Your task to perform on an android device: open app "eBay: The shopping marketplace" (install if not already installed) and go to login screen Image 0: 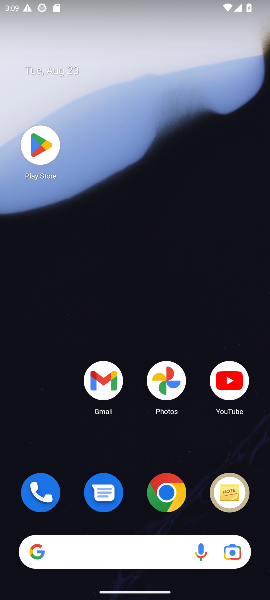
Step 0: drag from (142, 523) to (144, 234)
Your task to perform on an android device: open app "eBay: The shopping marketplace" (install if not already installed) and go to login screen Image 1: 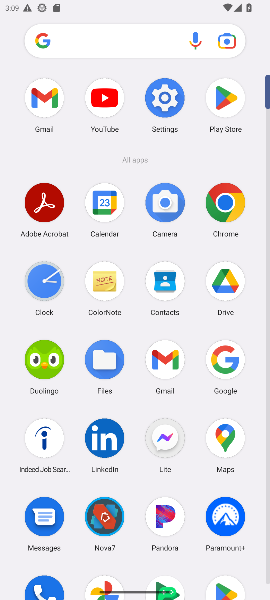
Step 1: click (227, 129)
Your task to perform on an android device: open app "eBay: The shopping marketplace" (install if not already installed) and go to login screen Image 2: 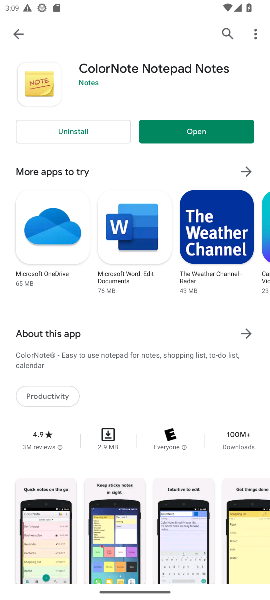
Step 2: click (227, 29)
Your task to perform on an android device: open app "eBay: The shopping marketplace" (install if not already installed) and go to login screen Image 3: 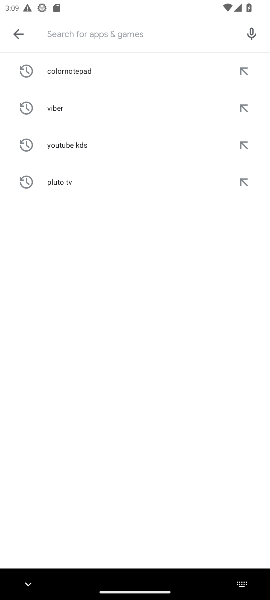
Step 3: type "ebay"
Your task to perform on an android device: open app "eBay: The shopping marketplace" (install if not already installed) and go to login screen Image 4: 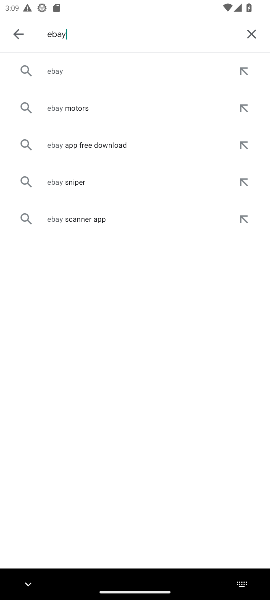
Step 4: click (132, 71)
Your task to perform on an android device: open app "eBay: The shopping marketplace" (install if not already installed) and go to login screen Image 5: 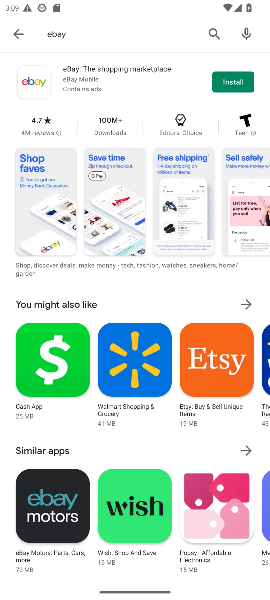
Step 5: click (210, 81)
Your task to perform on an android device: open app "eBay: The shopping marketplace" (install if not already installed) and go to login screen Image 6: 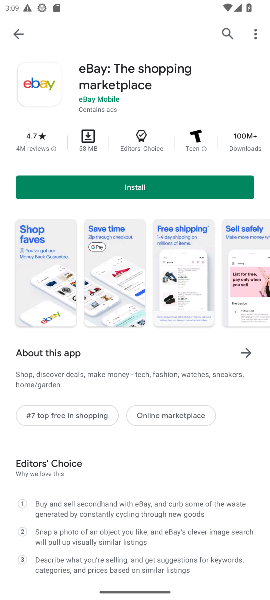
Step 6: click (161, 179)
Your task to perform on an android device: open app "eBay: The shopping marketplace" (install if not already installed) and go to login screen Image 7: 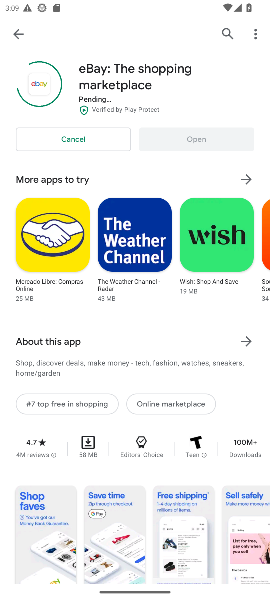
Step 7: task complete